Your task to perform on an android device: open app "Google Photos" (install if not already installed) Image 0: 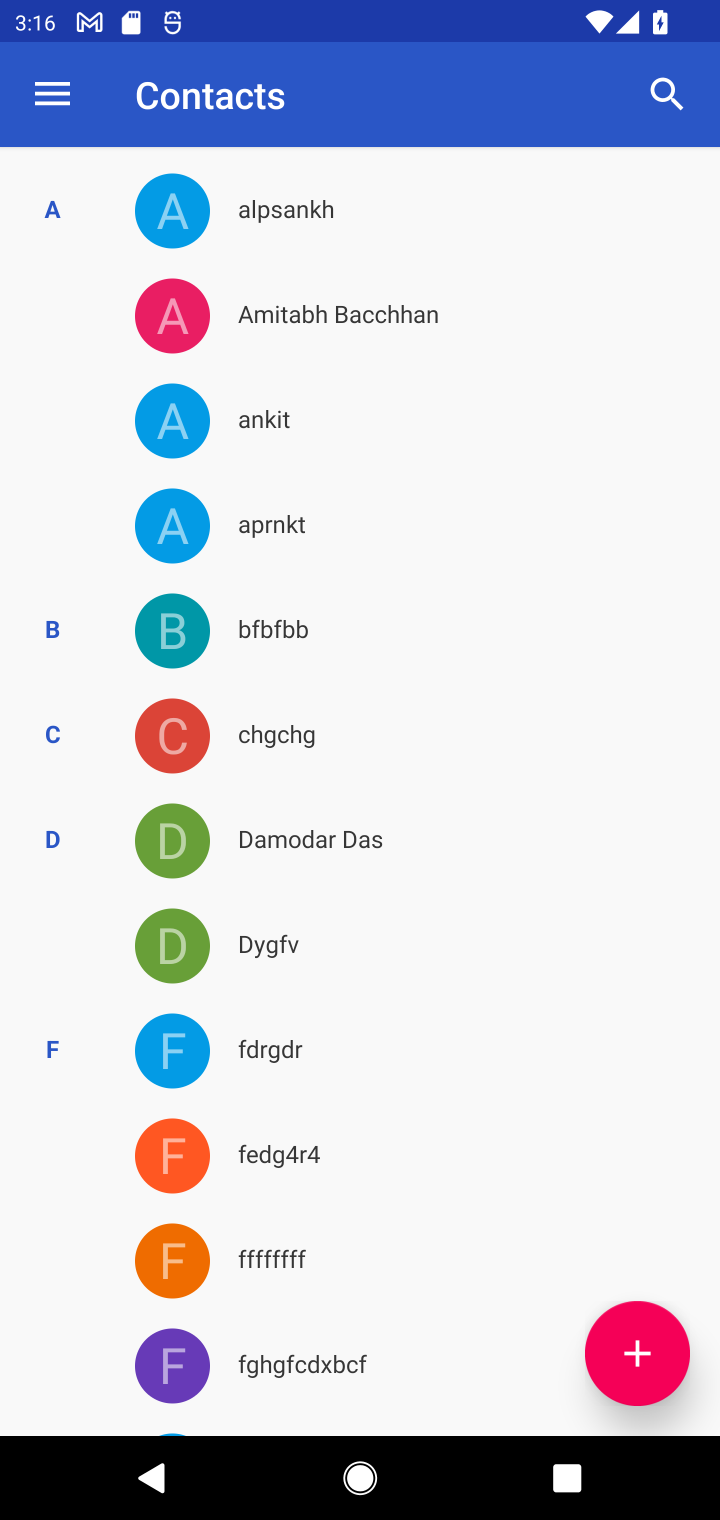
Step 0: press home button
Your task to perform on an android device: open app "Google Photos" (install if not already installed) Image 1: 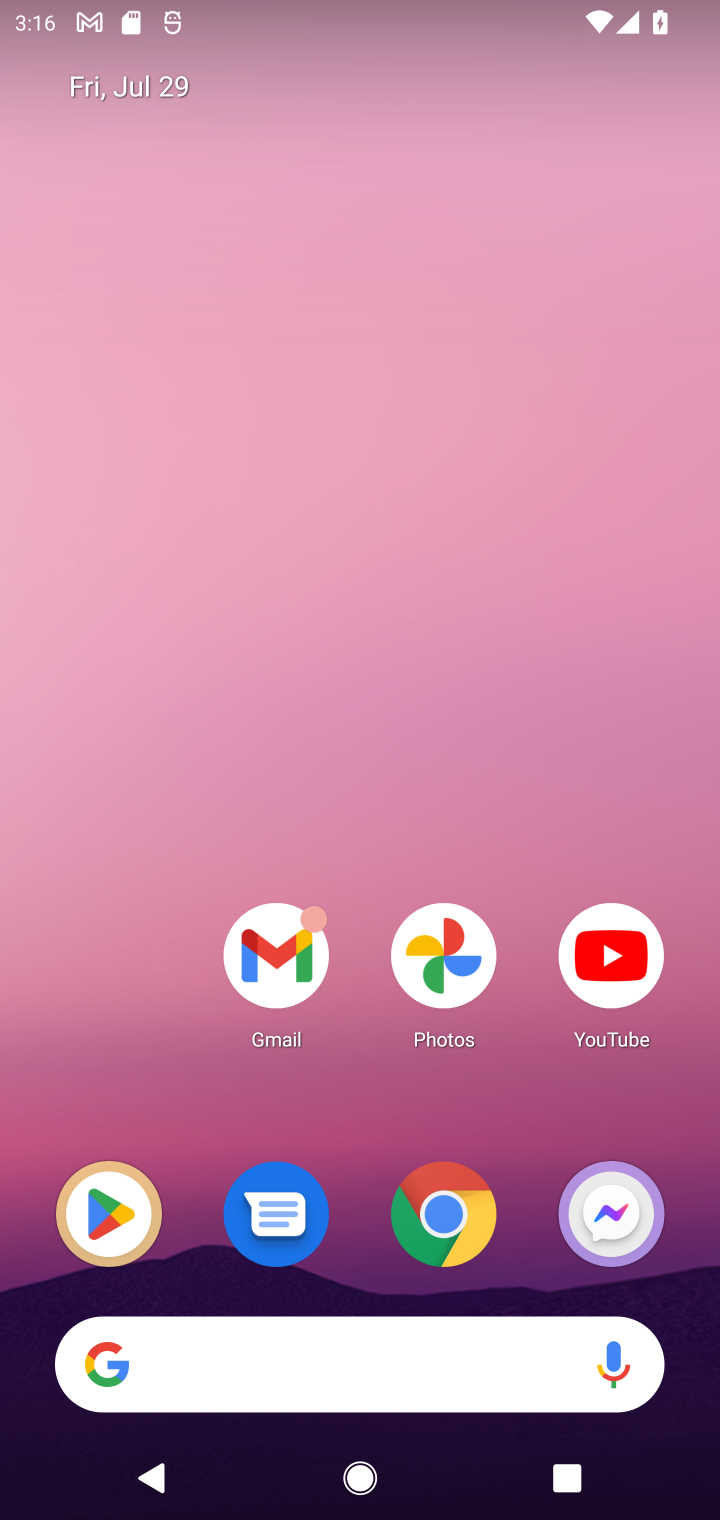
Step 1: click (452, 954)
Your task to perform on an android device: open app "Google Photos" (install if not already installed) Image 2: 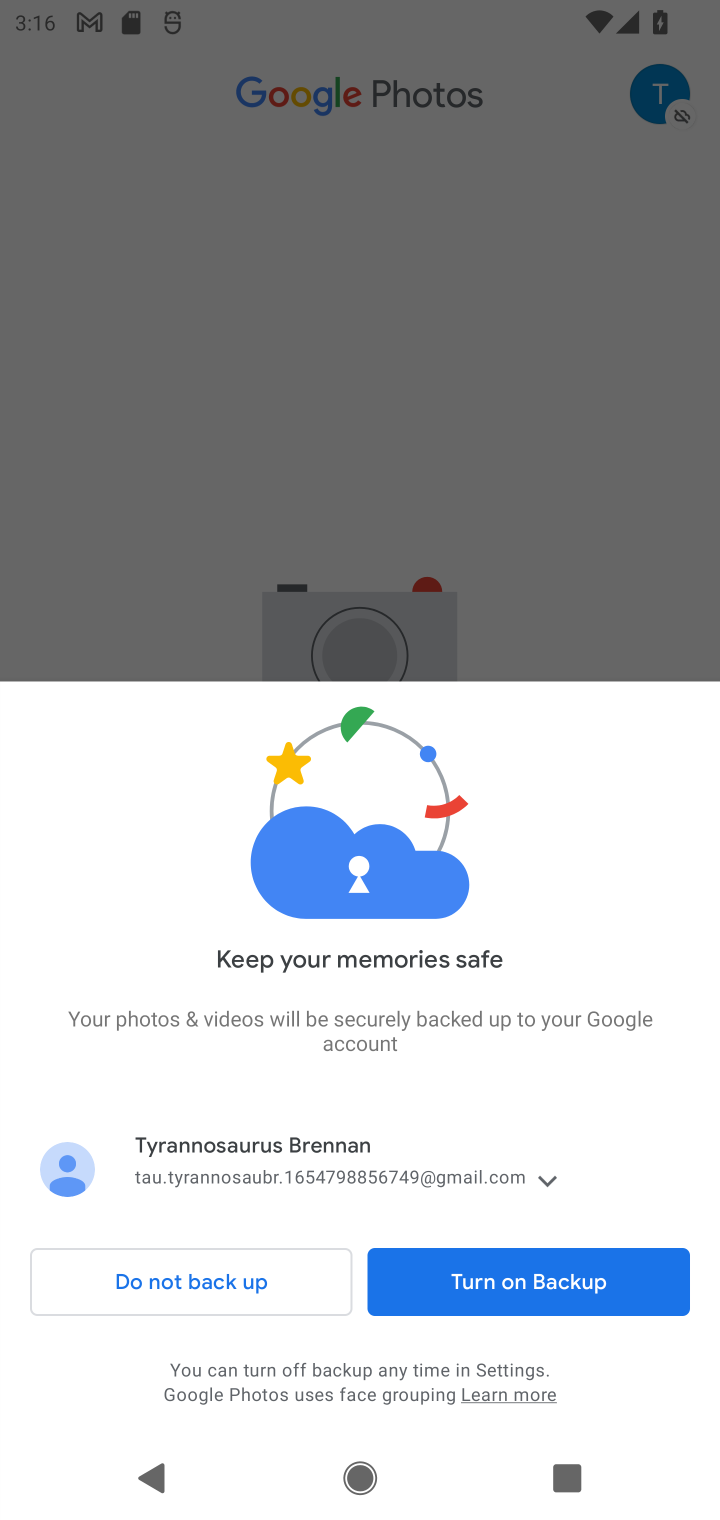
Step 2: task complete